Your task to perform on an android device: change timer sound Image 0: 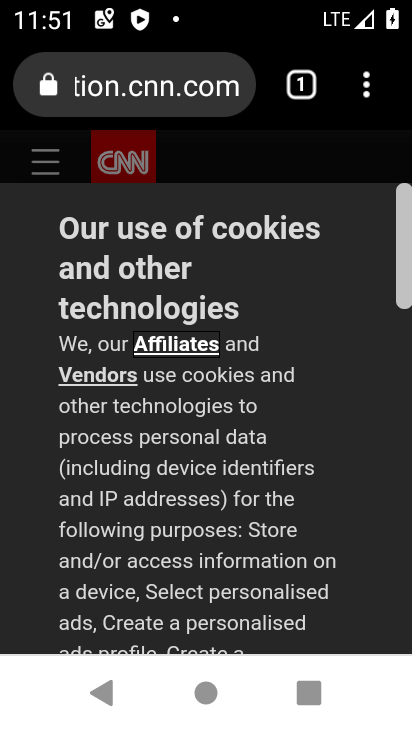
Step 0: click (383, 665)
Your task to perform on an android device: change timer sound Image 1: 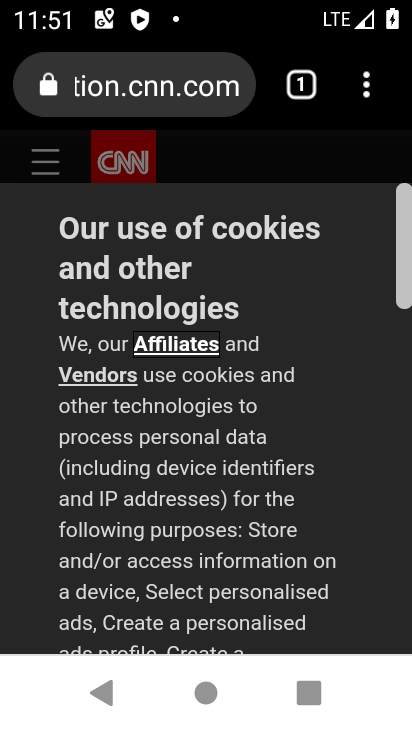
Step 1: press home button
Your task to perform on an android device: change timer sound Image 2: 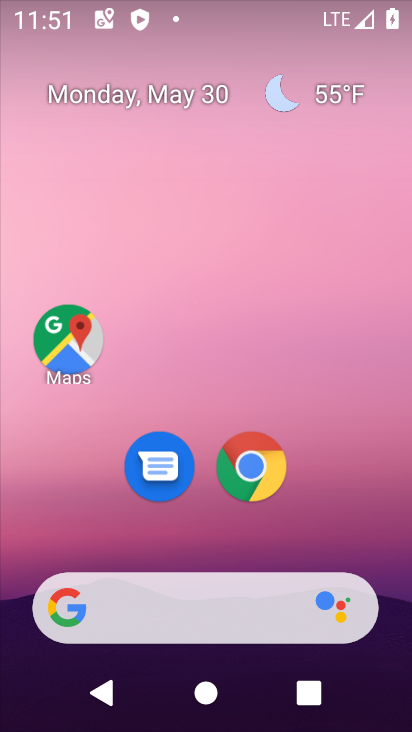
Step 2: drag from (411, 65) to (410, 544)
Your task to perform on an android device: change timer sound Image 3: 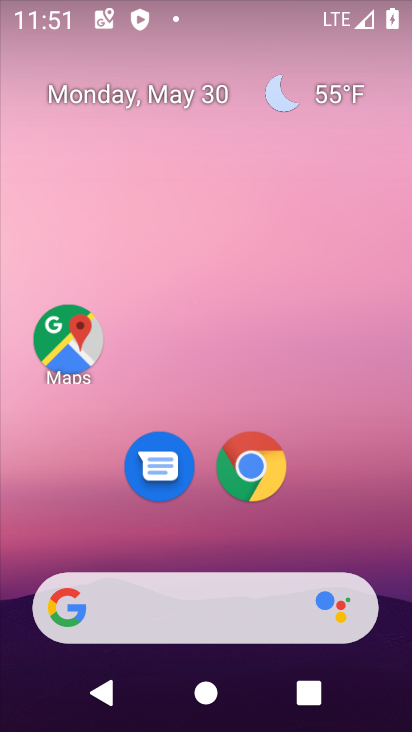
Step 3: drag from (363, 364) to (395, 88)
Your task to perform on an android device: change timer sound Image 4: 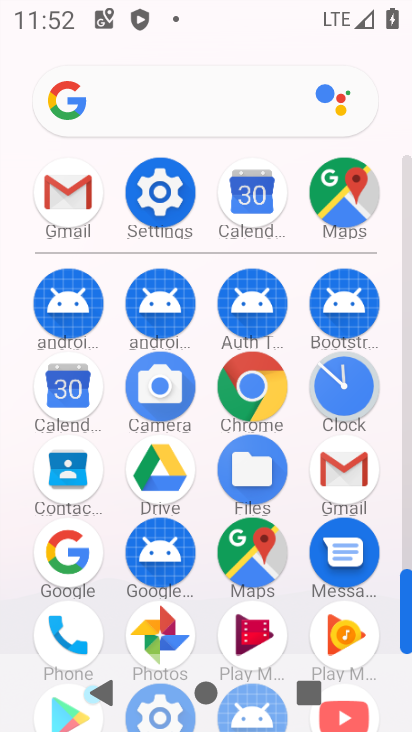
Step 4: click (340, 404)
Your task to perform on an android device: change timer sound Image 5: 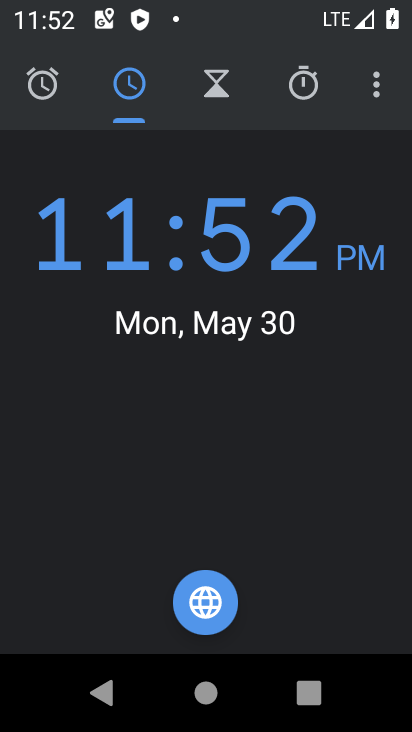
Step 5: click (378, 98)
Your task to perform on an android device: change timer sound Image 6: 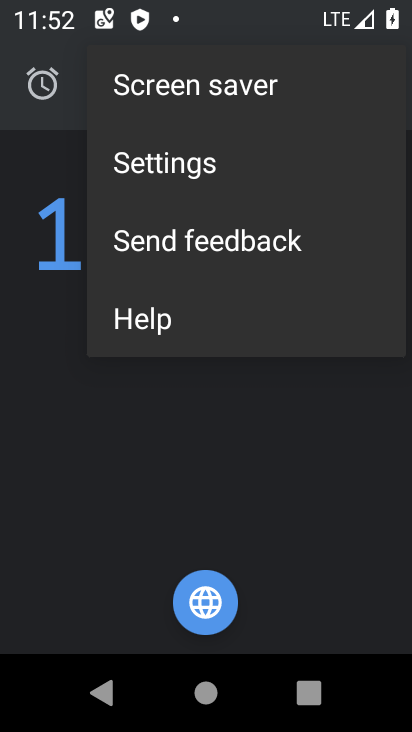
Step 6: click (207, 156)
Your task to perform on an android device: change timer sound Image 7: 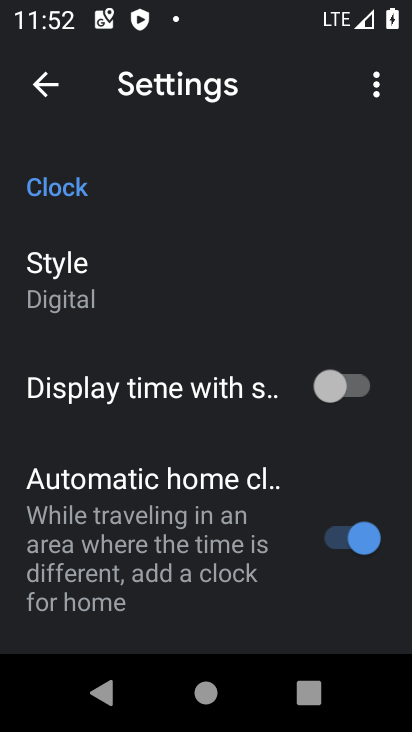
Step 7: drag from (243, 539) to (269, 67)
Your task to perform on an android device: change timer sound Image 8: 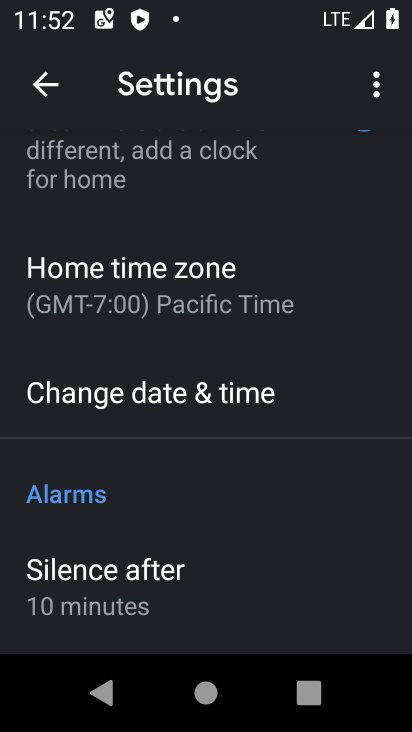
Step 8: drag from (265, 513) to (263, 81)
Your task to perform on an android device: change timer sound Image 9: 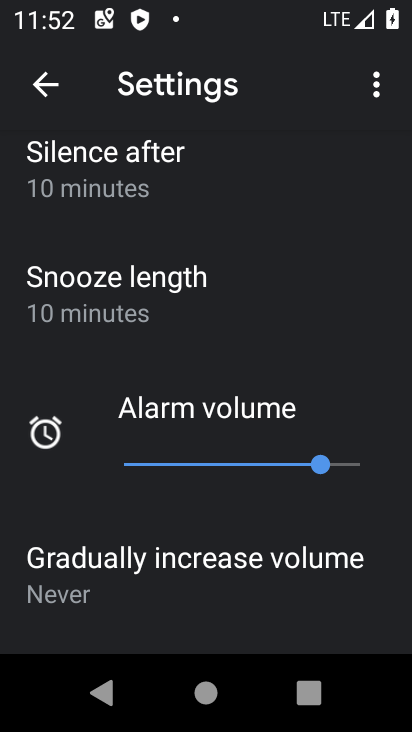
Step 9: drag from (267, 486) to (276, 66)
Your task to perform on an android device: change timer sound Image 10: 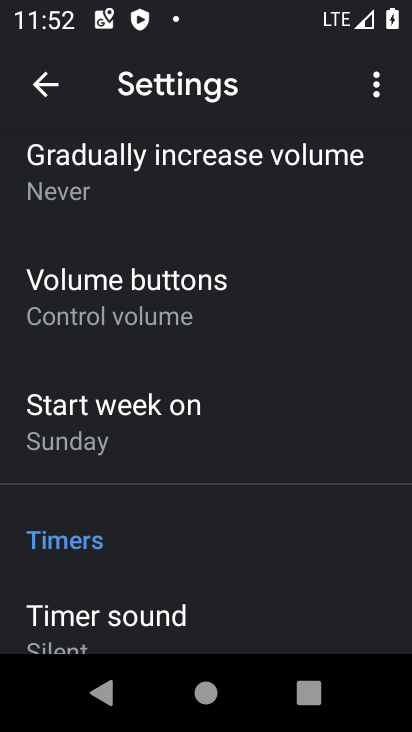
Step 10: drag from (251, 618) to (257, 378)
Your task to perform on an android device: change timer sound Image 11: 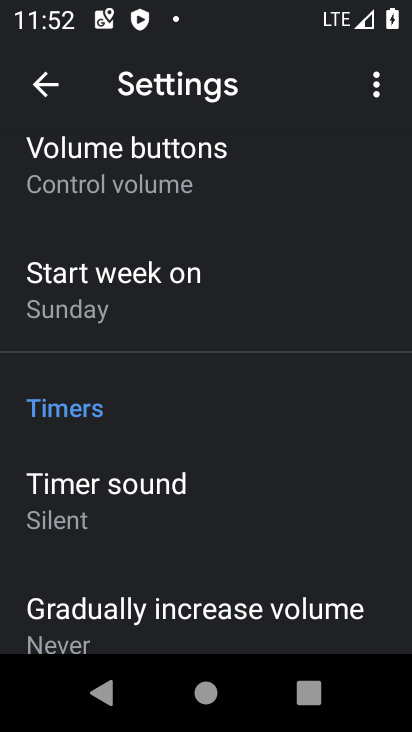
Step 11: click (189, 514)
Your task to perform on an android device: change timer sound Image 12: 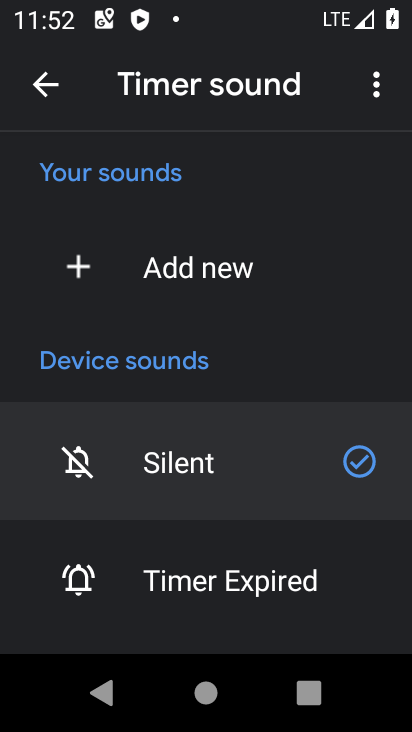
Step 12: drag from (224, 561) to (245, 254)
Your task to perform on an android device: change timer sound Image 13: 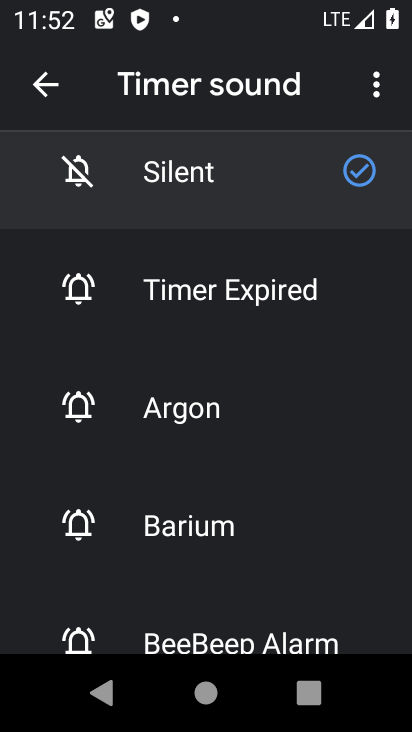
Step 13: click (217, 534)
Your task to perform on an android device: change timer sound Image 14: 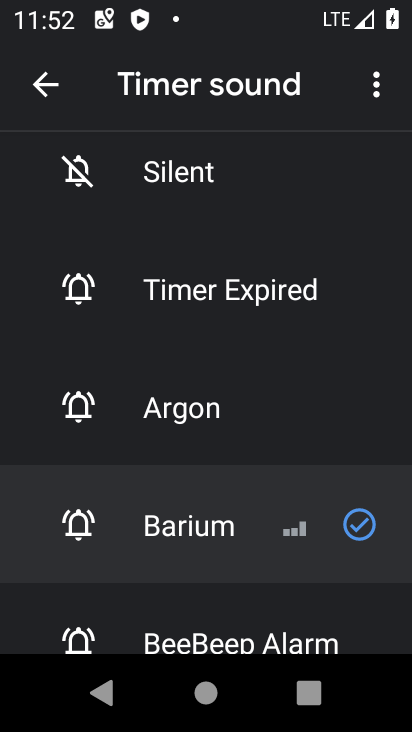
Step 14: task complete